Your task to perform on an android device: Open Google Maps and go to "Timeline" Image 0: 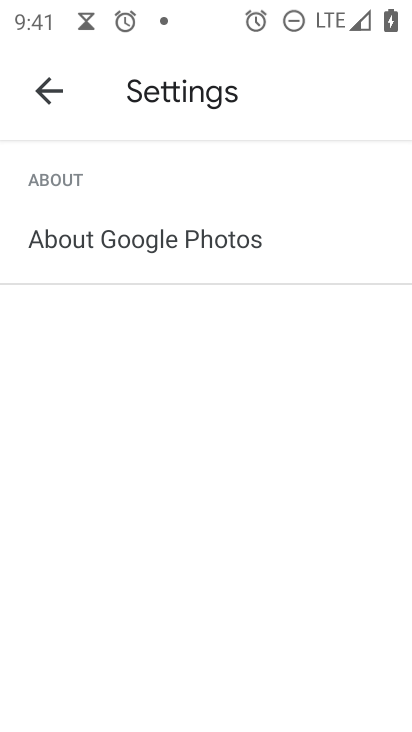
Step 0: press back button
Your task to perform on an android device: Open Google Maps and go to "Timeline" Image 1: 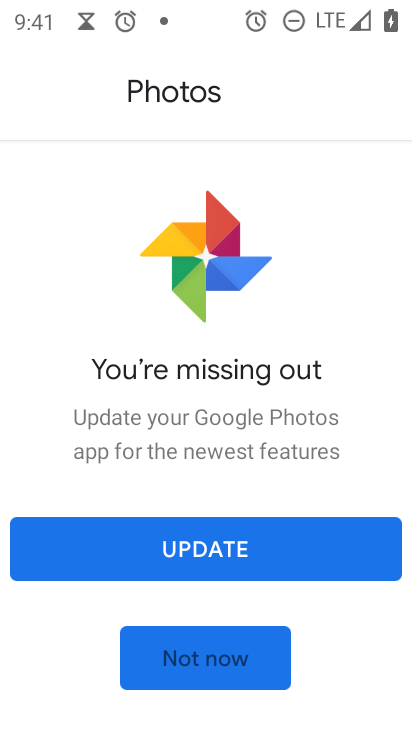
Step 1: press home button
Your task to perform on an android device: Open Google Maps and go to "Timeline" Image 2: 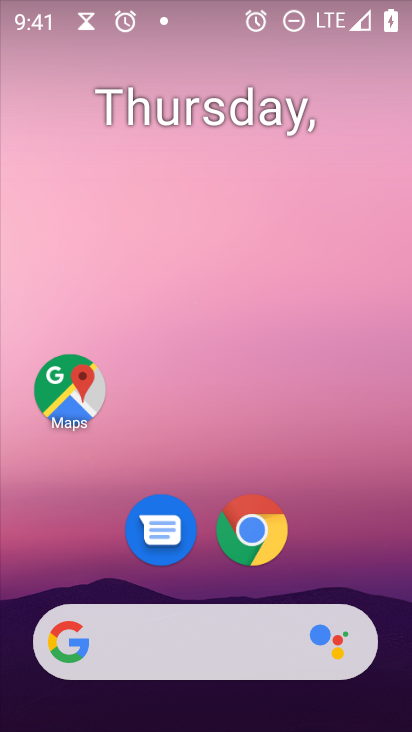
Step 2: drag from (335, 561) to (329, 33)
Your task to perform on an android device: Open Google Maps and go to "Timeline" Image 3: 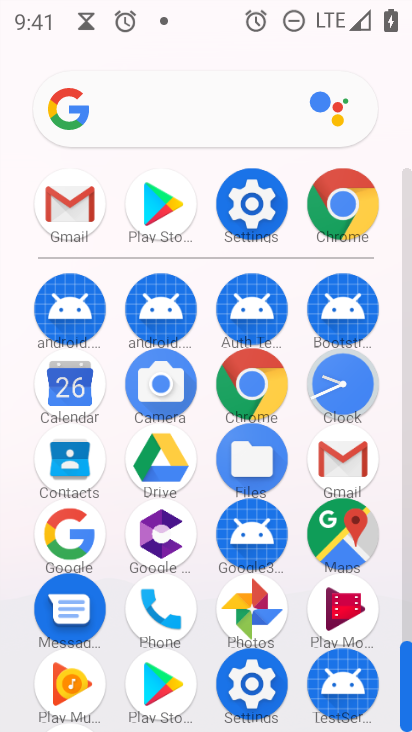
Step 3: drag from (0, 544) to (18, 335)
Your task to perform on an android device: Open Google Maps and go to "Timeline" Image 4: 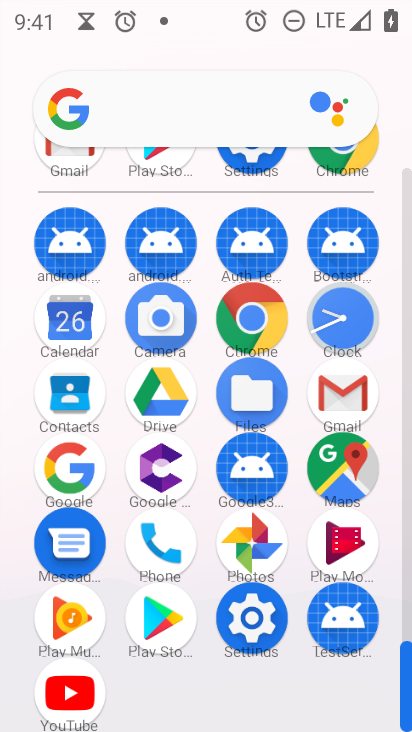
Step 4: click (341, 468)
Your task to perform on an android device: Open Google Maps and go to "Timeline" Image 5: 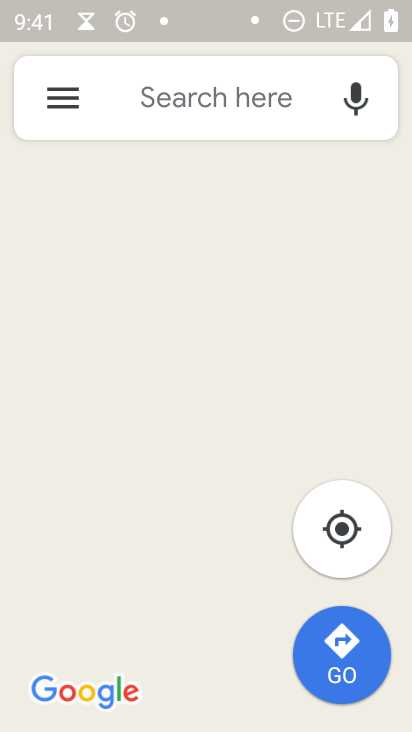
Step 5: click (68, 104)
Your task to perform on an android device: Open Google Maps and go to "Timeline" Image 6: 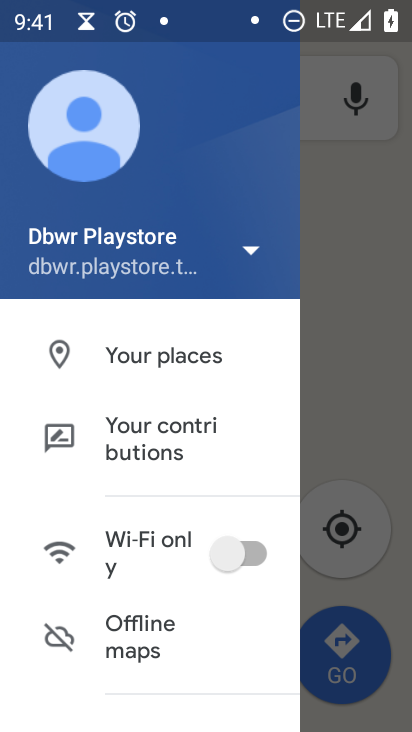
Step 6: drag from (125, 632) to (149, 210)
Your task to perform on an android device: Open Google Maps and go to "Timeline" Image 7: 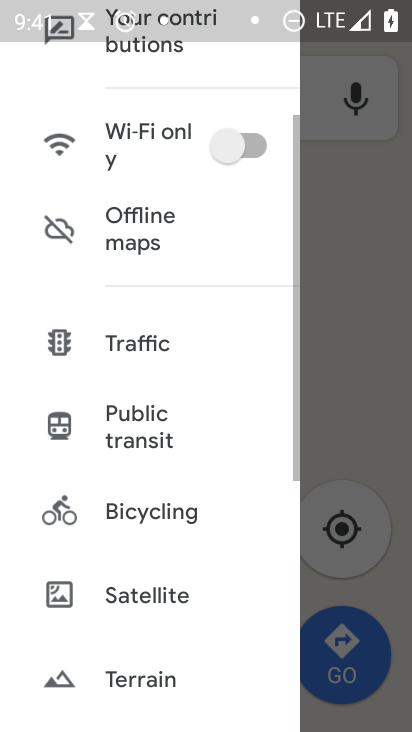
Step 7: drag from (151, 204) to (165, 603)
Your task to perform on an android device: Open Google Maps and go to "Timeline" Image 8: 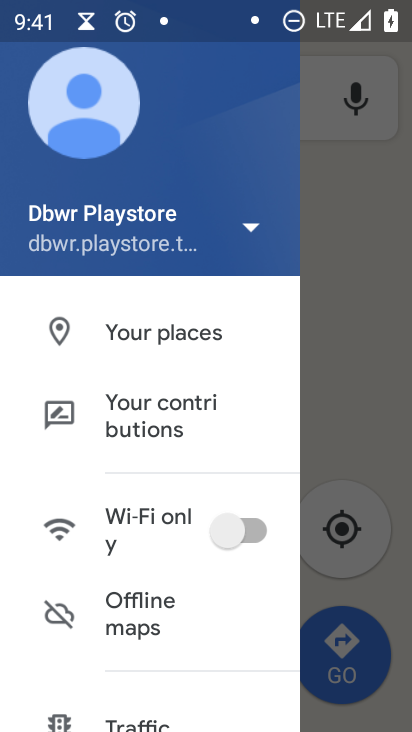
Step 8: click (206, 332)
Your task to perform on an android device: Open Google Maps and go to "Timeline" Image 9: 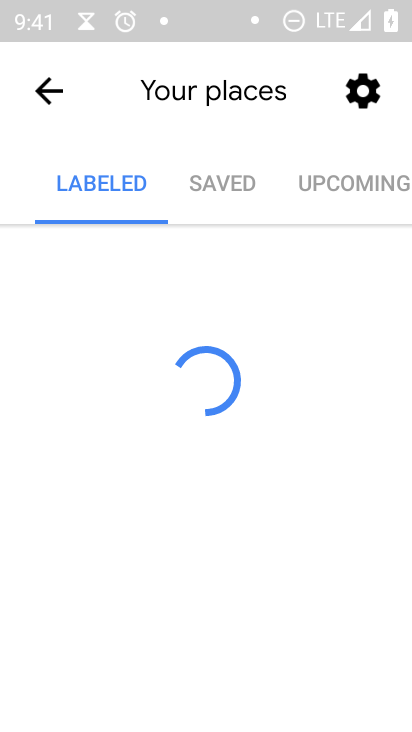
Step 9: click (47, 93)
Your task to perform on an android device: Open Google Maps and go to "Timeline" Image 10: 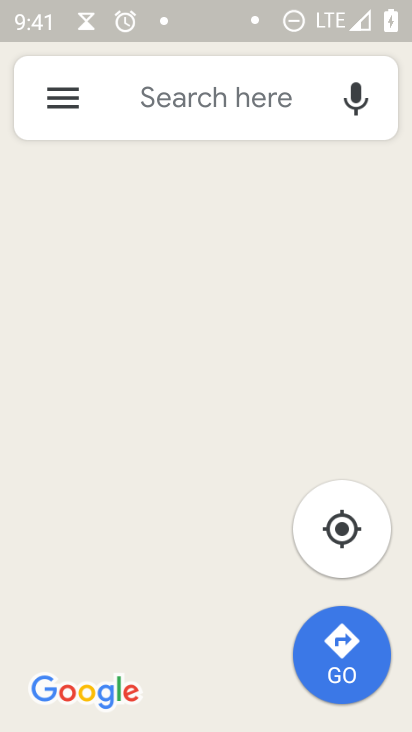
Step 10: click (59, 93)
Your task to perform on an android device: Open Google Maps and go to "Timeline" Image 11: 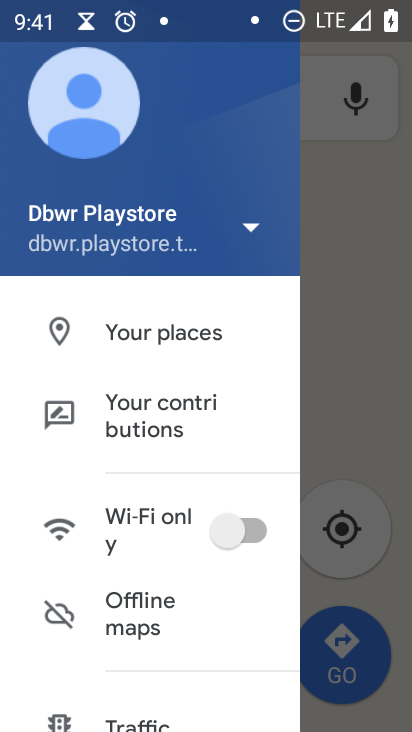
Step 11: drag from (171, 610) to (158, 211)
Your task to perform on an android device: Open Google Maps and go to "Timeline" Image 12: 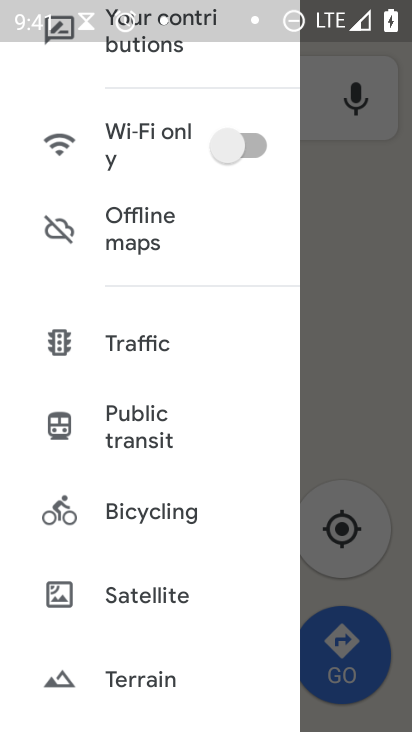
Step 12: drag from (167, 595) to (174, 161)
Your task to perform on an android device: Open Google Maps and go to "Timeline" Image 13: 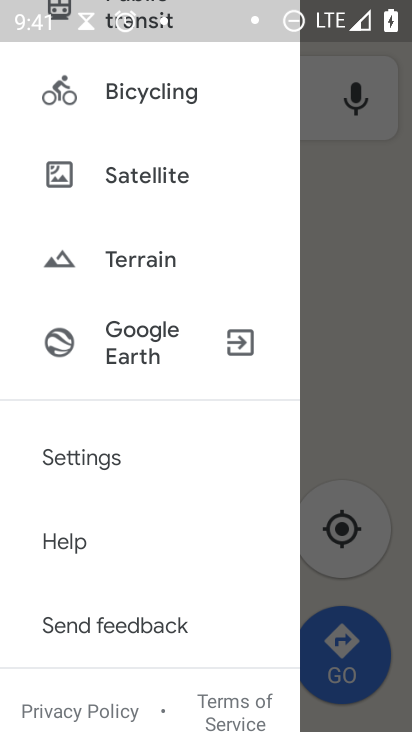
Step 13: drag from (158, 573) to (154, 160)
Your task to perform on an android device: Open Google Maps and go to "Timeline" Image 14: 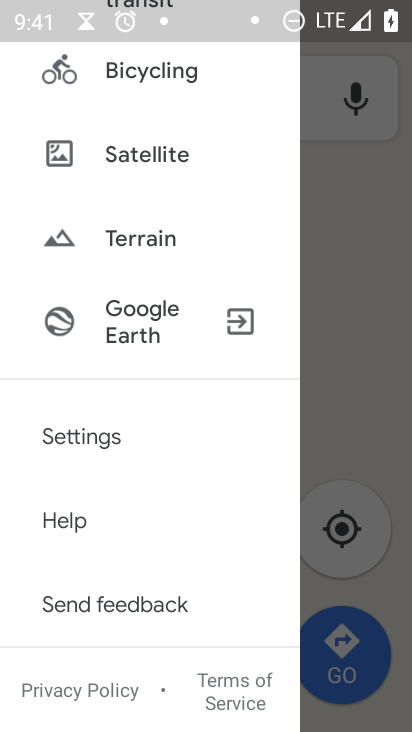
Step 14: drag from (169, 125) to (187, 593)
Your task to perform on an android device: Open Google Maps and go to "Timeline" Image 15: 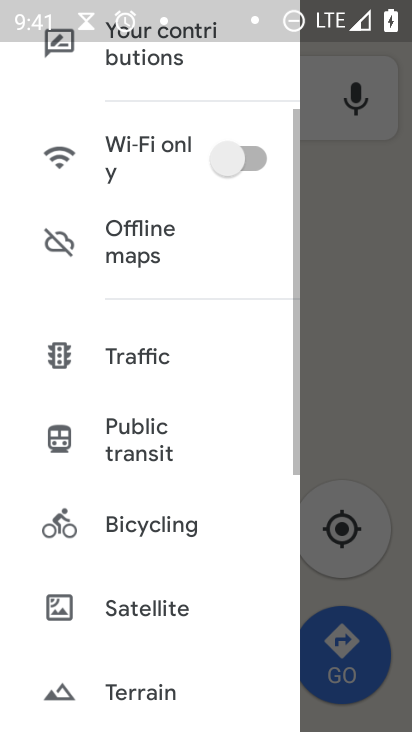
Step 15: drag from (172, 196) to (184, 632)
Your task to perform on an android device: Open Google Maps and go to "Timeline" Image 16: 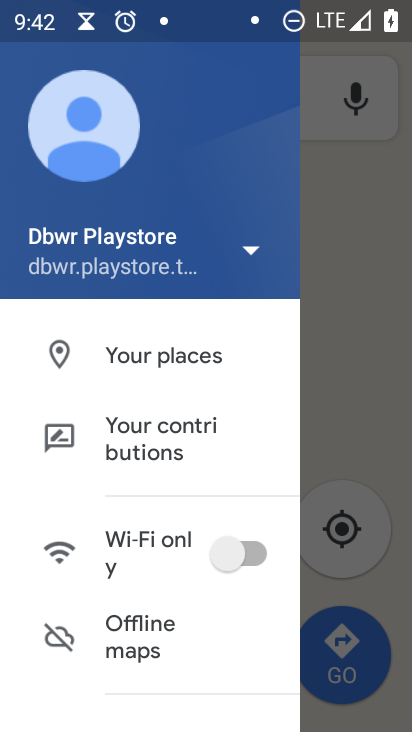
Step 16: click (196, 348)
Your task to perform on an android device: Open Google Maps and go to "Timeline" Image 17: 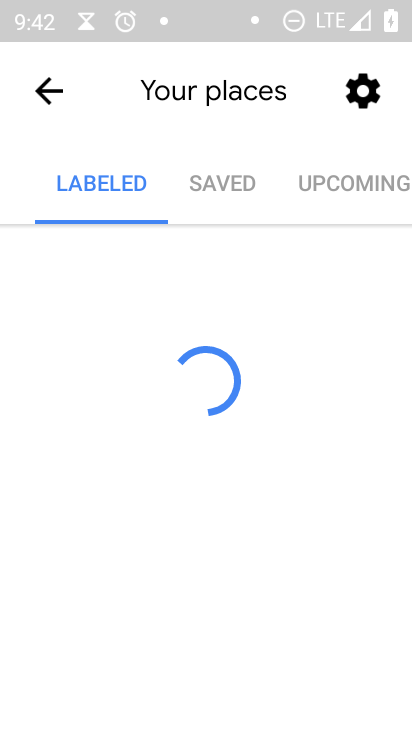
Step 17: task complete